Your task to perform on an android device: remove spam from my inbox in the gmail app Image 0: 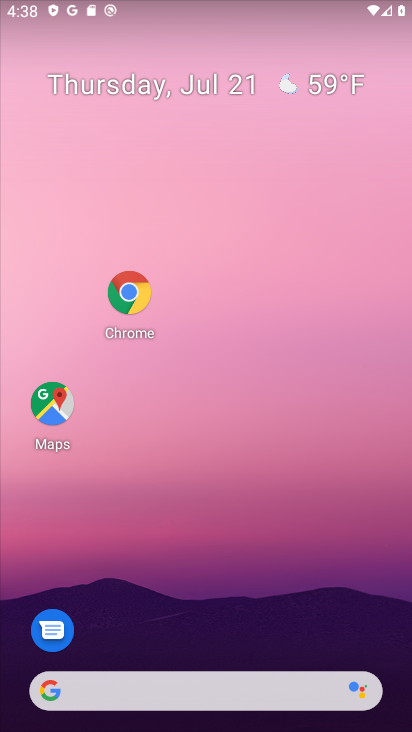
Step 0: drag from (214, 549) to (226, 176)
Your task to perform on an android device: remove spam from my inbox in the gmail app Image 1: 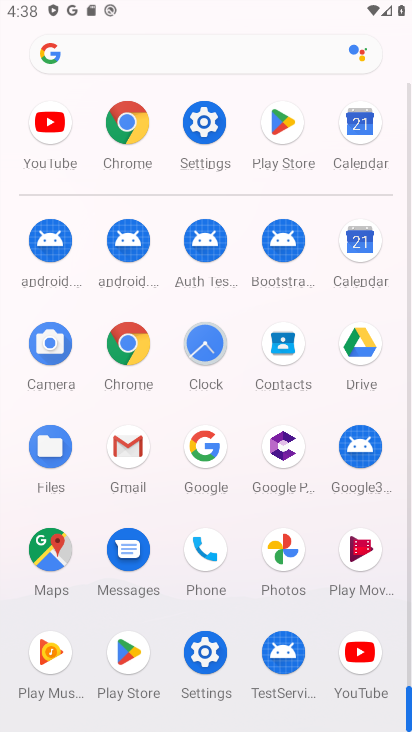
Step 1: click (125, 449)
Your task to perform on an android device: remove spam from my inbox in the gmail app Image 2: 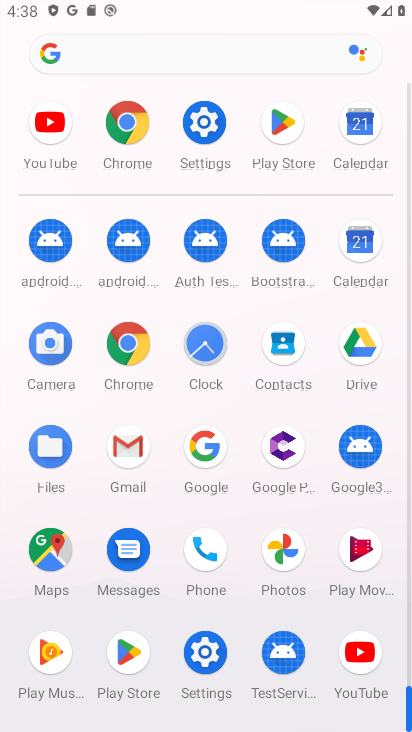
Step 2: click (125, 449)
Your task to perform on an android device: remove spam from my inbox in the gmail app Image 3: 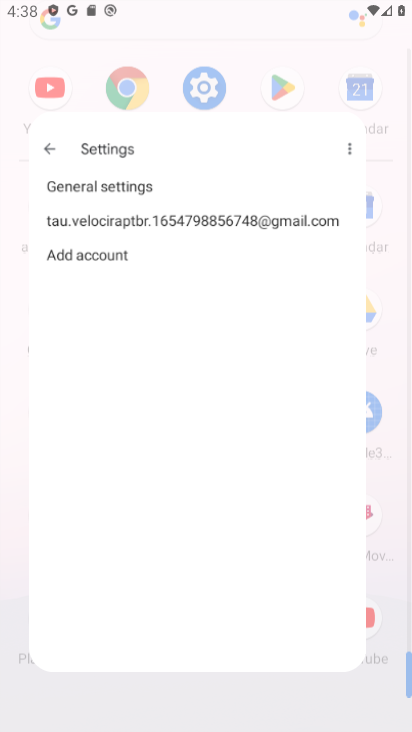
Step 3: click (125, 449)
Your task to perform on an android device: remove spam from my inbox in the gmail app Image 4: 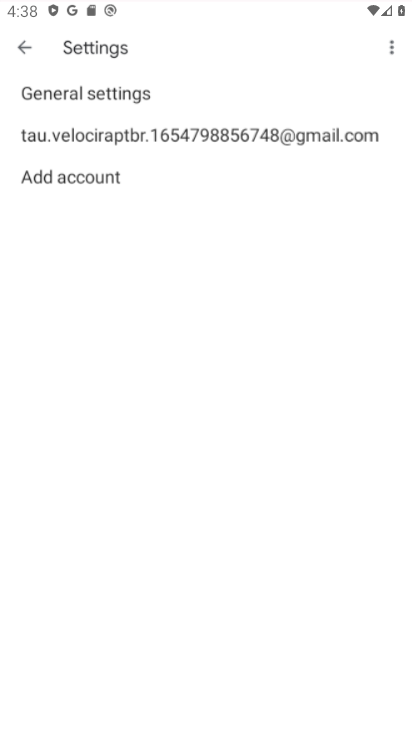
Step 4: click (125, 449)
Your task to perform on an android device: remove spam from my inbox in the gmail app Image 5: 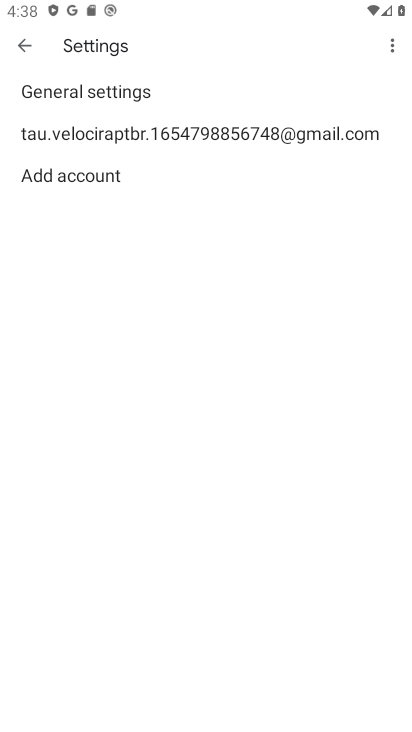
Step 5: click (15, 34)
Your task to perform on an android device: remove spam from my inbox in the gmail app Image 6: 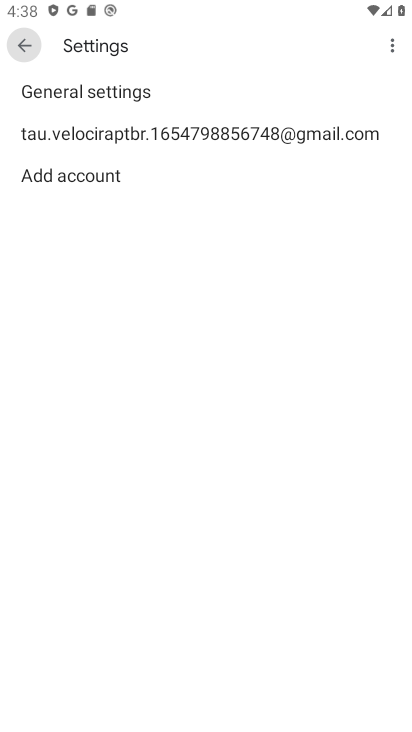
Step 6: click (19, 36)
Your task to perform on an android device: remove spam from my inbox in the gmail app Image 7: 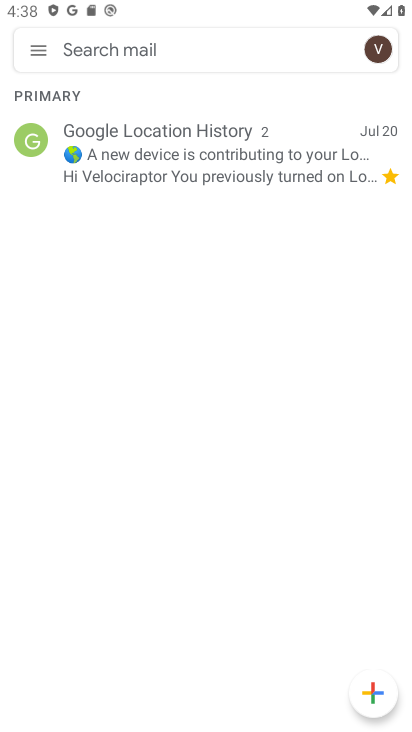
Step 7: click (30, 49)
Your task to perform on an android device: remove spam from my inbox in the gmail app Image 8: 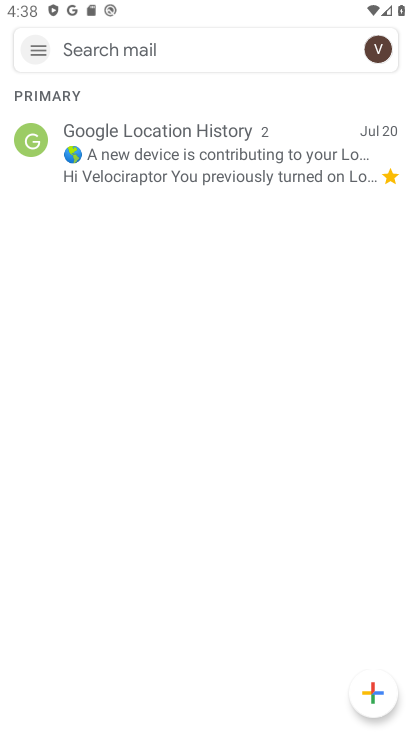
Step 8: click (29, 49)
Your task to perform on an android device: remove spam from my inbox in the gmail app Image 9: 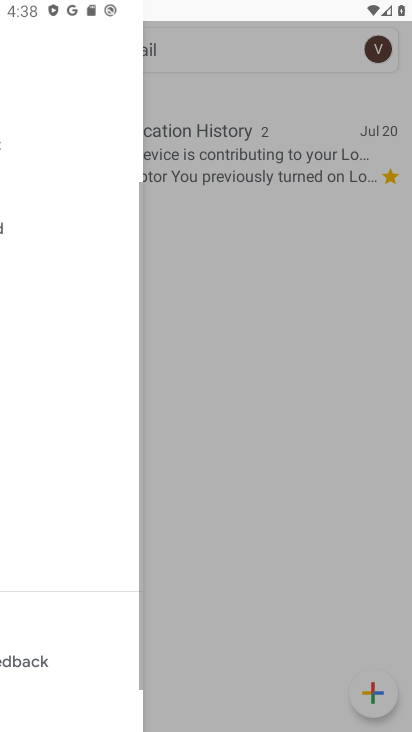
Step 9: click (29, 49)
Your task to perform on an android device: remove spam from my inbox in the gmail app Image 10: 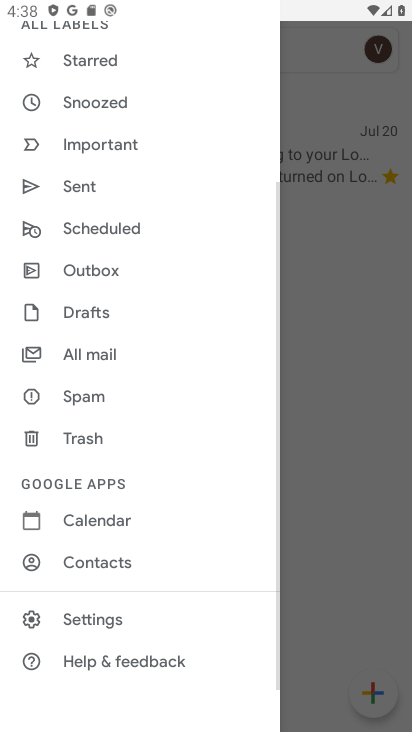
Step 10: click (89, 402)
Your task to perform on an android device: remove spam from my inbox in the gmail app Image 11: 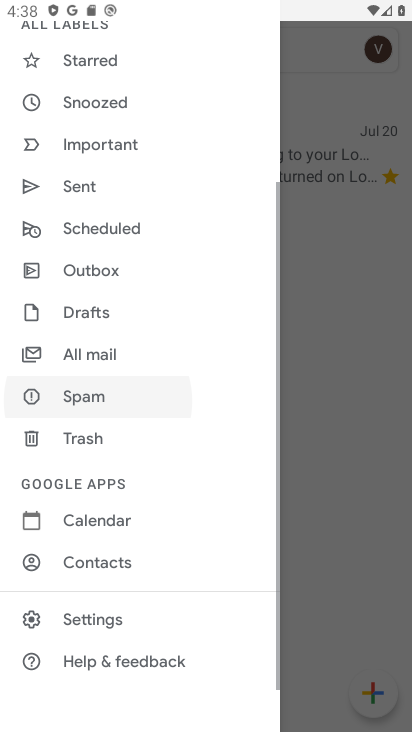
Step 11: click (90, 401)
Your task to perform on an android device: remove spam from my inbox in the gmail app Image 12: 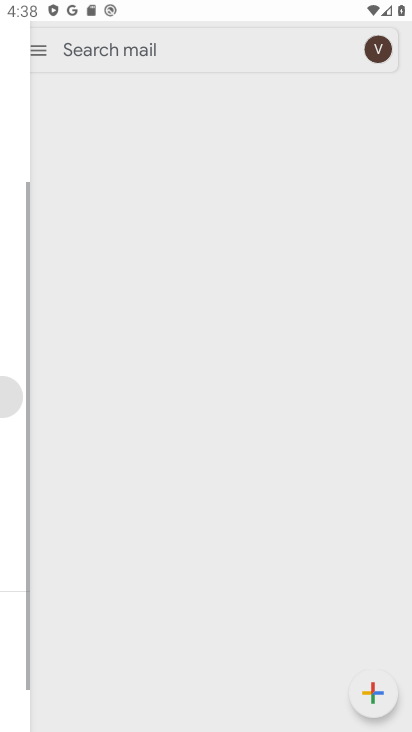
Step 12: click (90, 401)
Your task to perform on an android device: remove spam from my inbox in the gmail app Image 13: 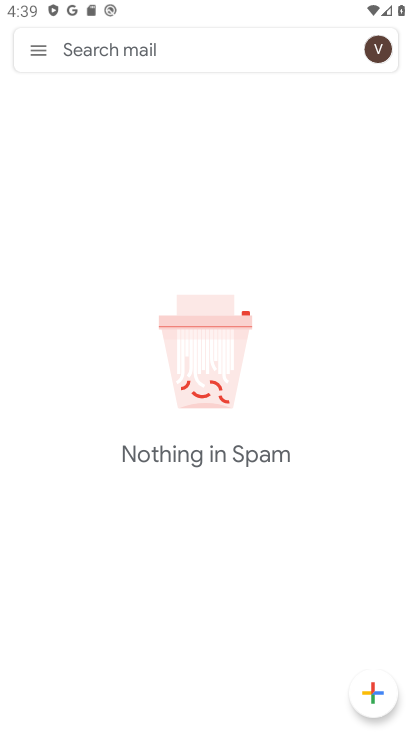
Step 13: task complete